Your task to perform on an android device: open sync settings in chrome Image 0: 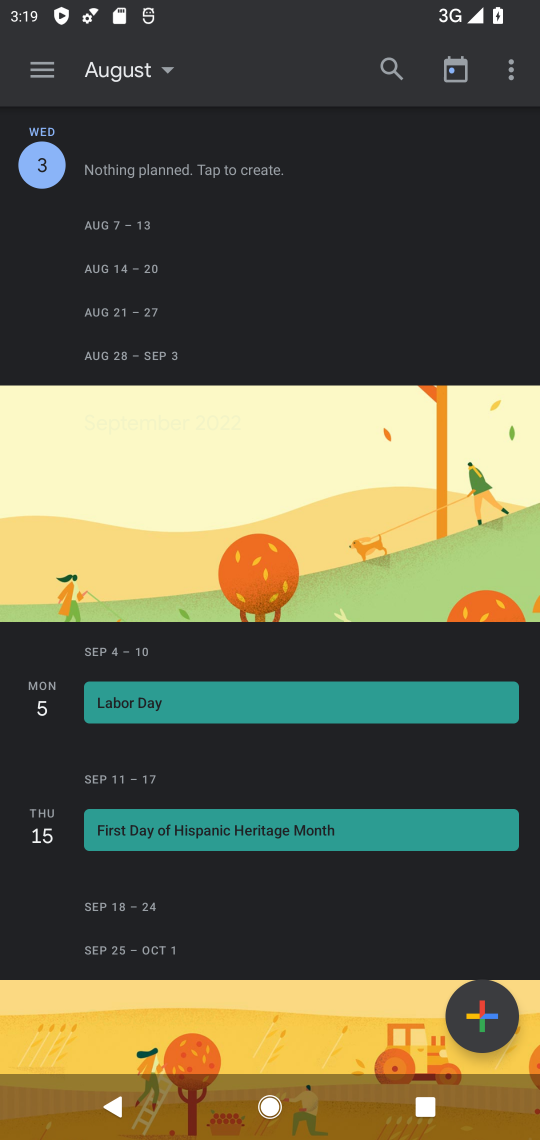
Step 0: task complete